Your task to perform on an android device: turn off location Image 0: 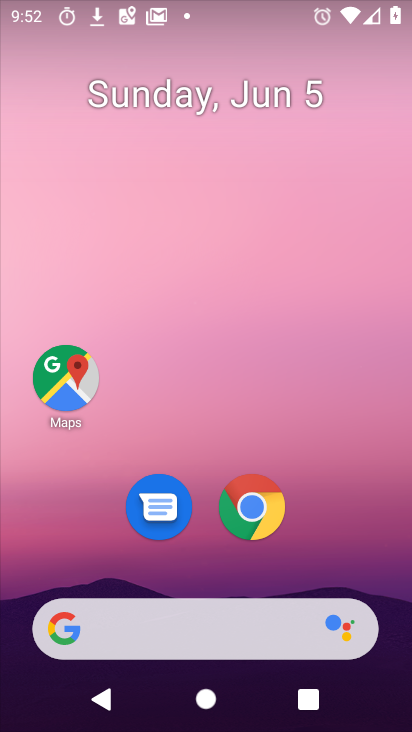
Step 0: drag from (285, 684) to (252, 176)
Your task to perform on an android device: turn off location Image 1: 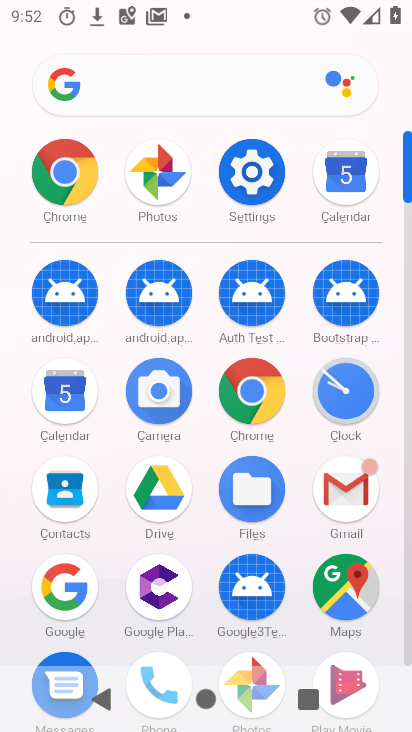
Step 1: click (250, 191)
Your task to perform on an android device: turn off location Image 2: 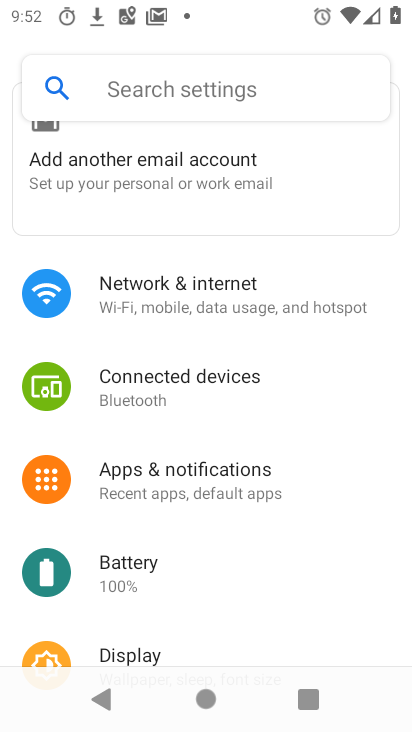
Step 2: click (170, 112)
Your task to perform on an android device: turn off location Image 3: 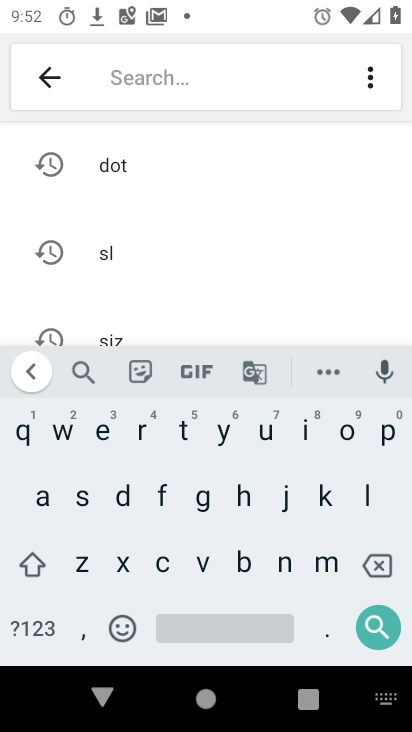
Step 3: click (375, 503)
Your task to perform on an android device: turn off location Image 4: 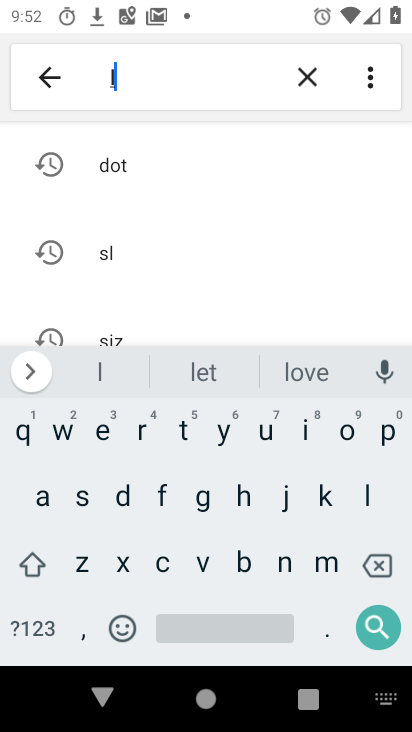
Step 4: click (349, 435)
Your task to perform on an android device: turn off location Image 5: 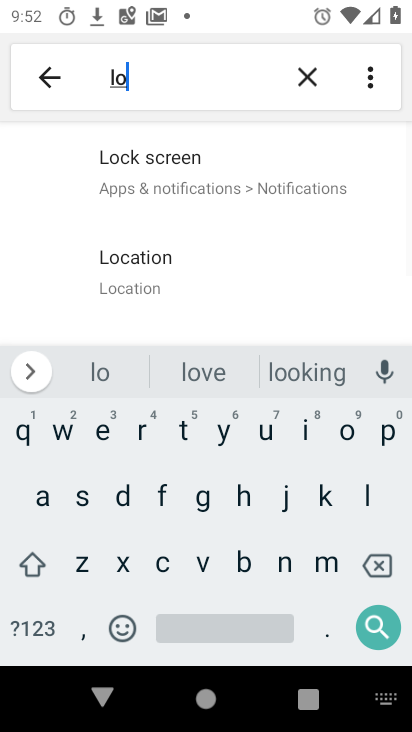
Step 5: click (114, 250)
Your task to perform on an android device: turn off location Image 6: 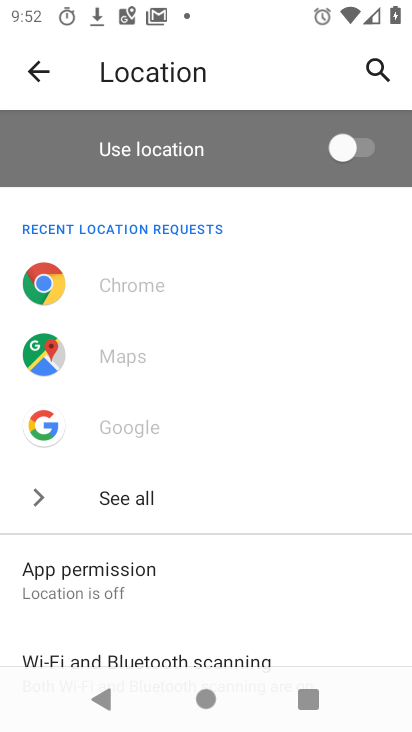
Step 6: click (358, 173)
Your task to perform on an android device: turn off location Image 7: 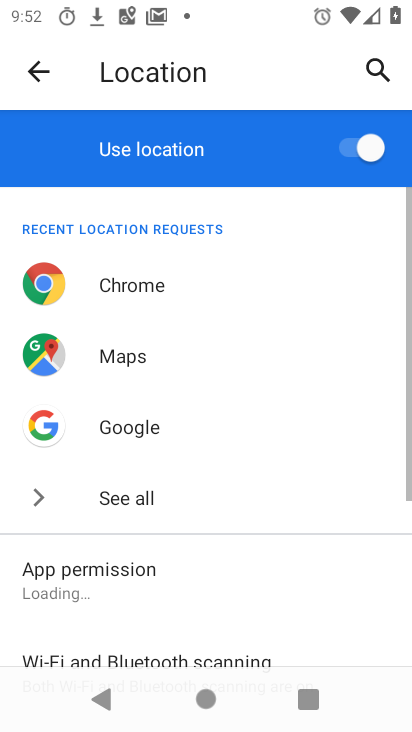
Step 7: click (357, 170)
Your task to perform on an android device: turn off location Image 8: 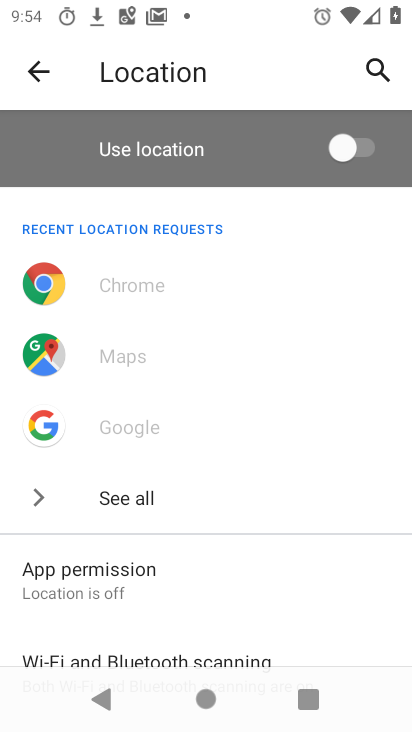
Step 8: task complete